Your task to perform on an android device: find photos in the google photos app Image 0: 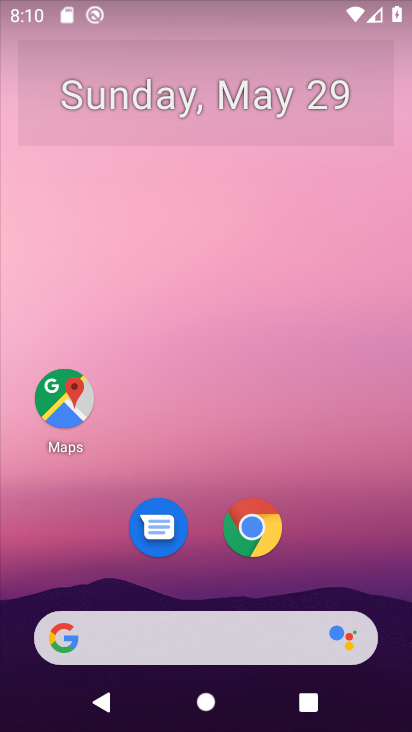
Step 0: drag from (210, 581) to (167, 37)
Your task to perform on an android device: find photos in the google photos app Image 1: 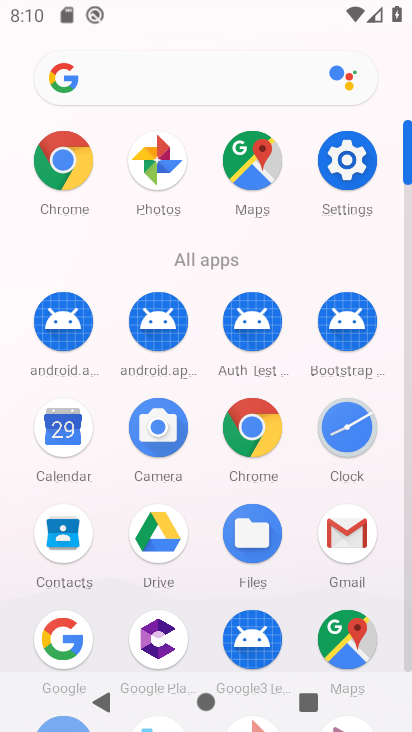
Step 1: click (151, 162)
Your task to perform on an android device: find photos in the google photos app Image 2: 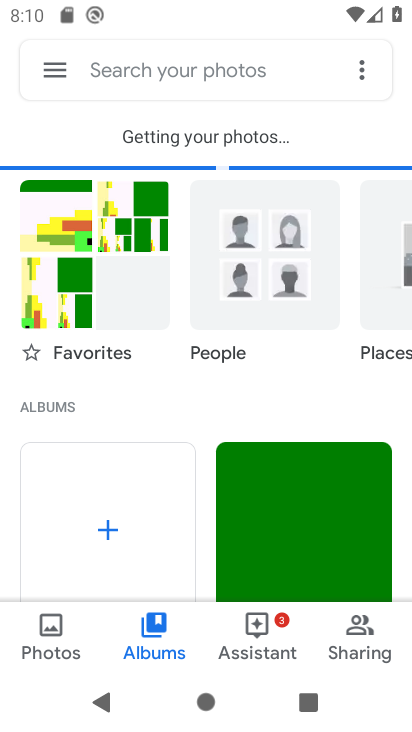
Step 2: click (48, 632)
Your task to perform on an android device: find photos in the google photos app Image 3: 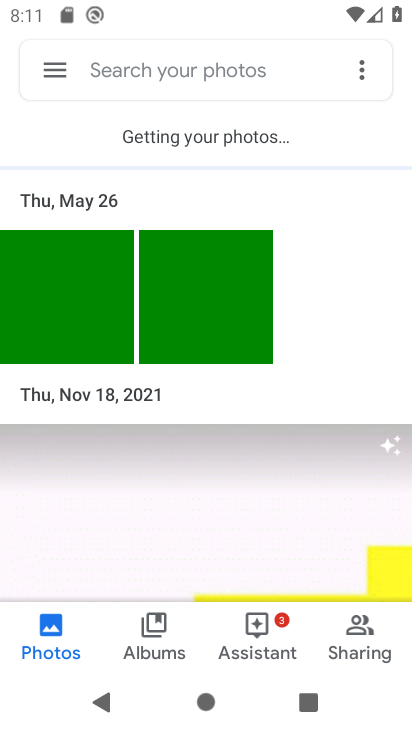
Step 3: task complete